Your task to perform on an android device: Find coffee shops on Maps Image 0: 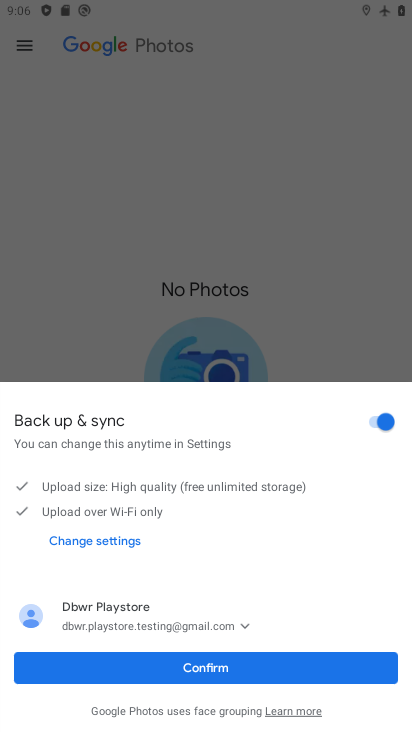
Step 0: press home button
Your task to perform on an android device: Find coffee shops on Maps Image 1: 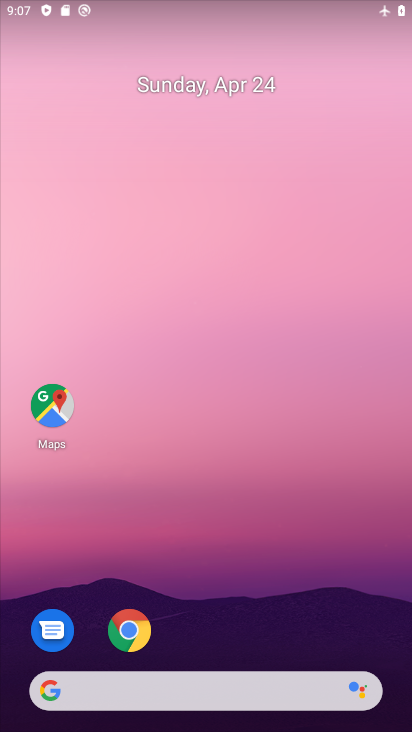
Step 1: click (63, 402)
Your task to perform on an android device: Find coffee shops on Maps Image 2: 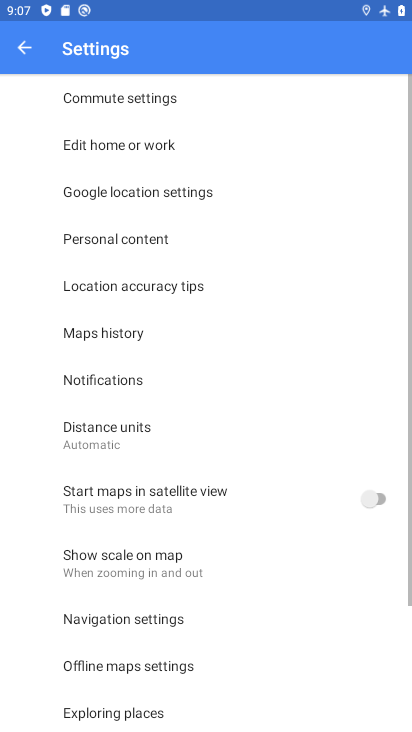
Step 2: click (32, 52)
Your task to perform on an android device: Find coffee shops on Maps Image 3: 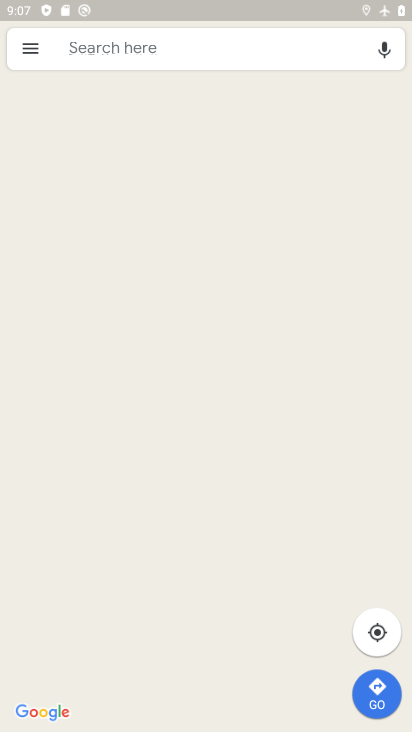
Step 3: click (244, 57)
Your task to perform on an android device: Find coffee shops on Maps Image 4: 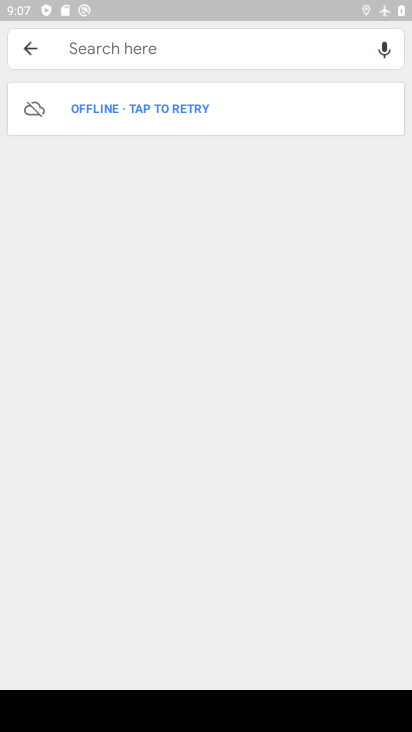
Step 4: type "coffee shop"
Your task to perform on an android device: Find coffee shops on Maps Image 5: 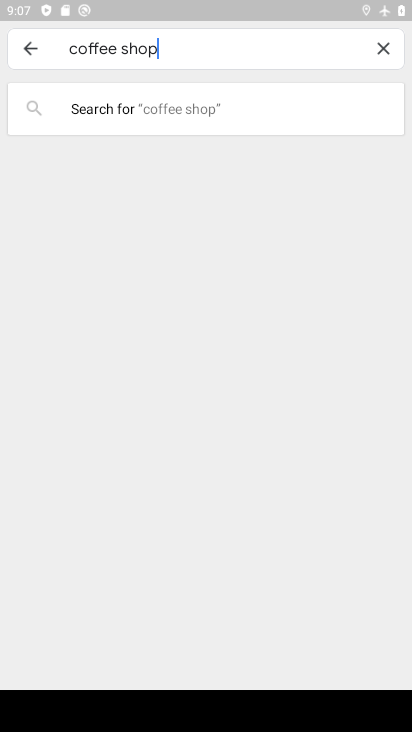
Step 5: task complete